Your task to perform on an android device: Show me popular videos on Youtube Image 0: 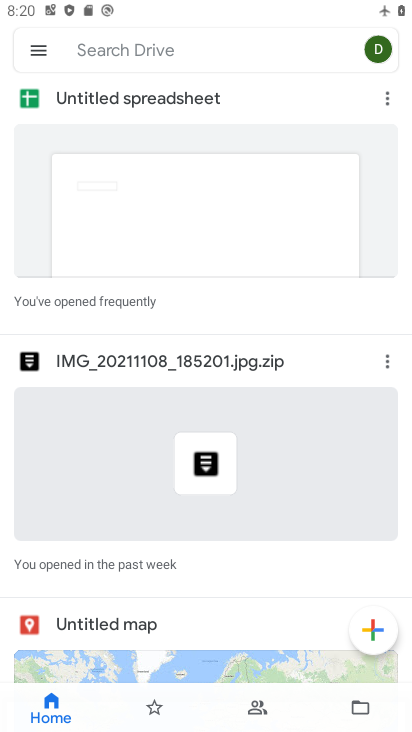
Step 0: press home button
Your task to perform on an android device: Show me popular videos on Youtube Image 1: 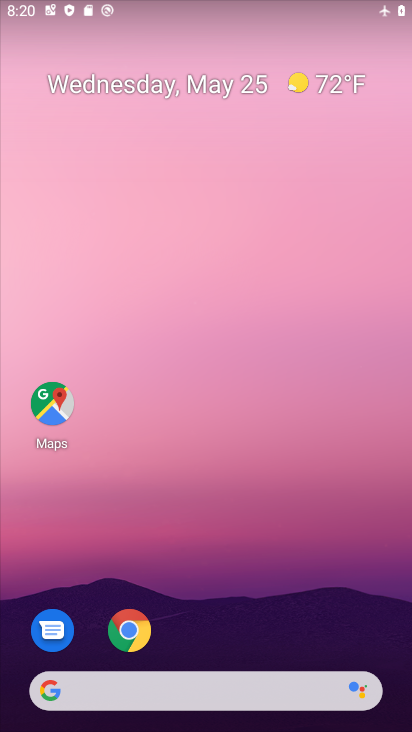
Step 1: drag from (210, 642) to (207, 217)
Your task to perform on an android device: Show me popular videos on Youtube Image 2: 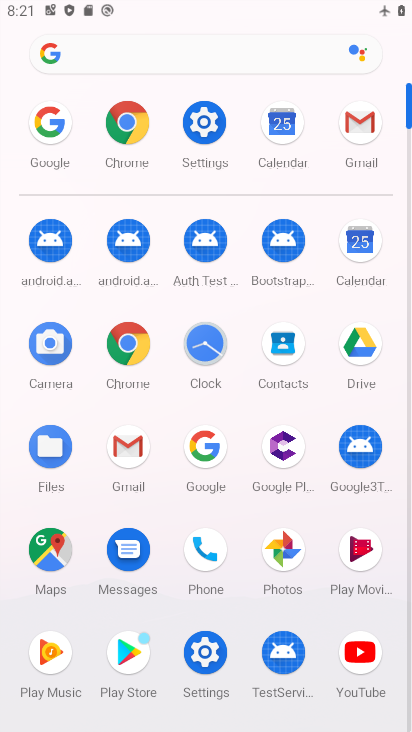
Step 2: click (368, 654)
Your task to perform on an android device: Show me popular videos on Youtube Image 3: 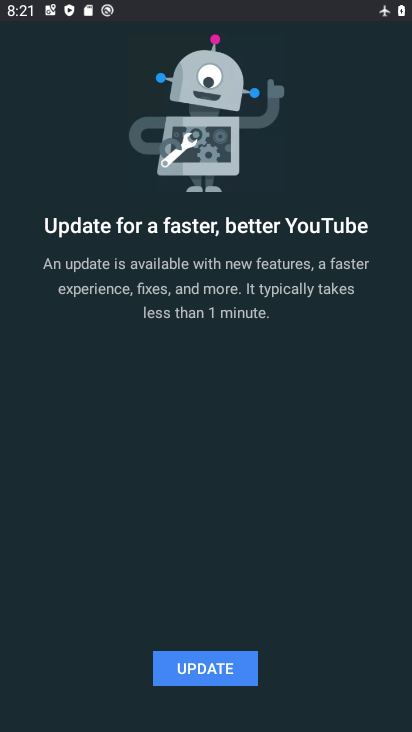
Step 3: click (204, 657)
Your task to perform on an android device: Show me popular videos on Youtube Image 4: 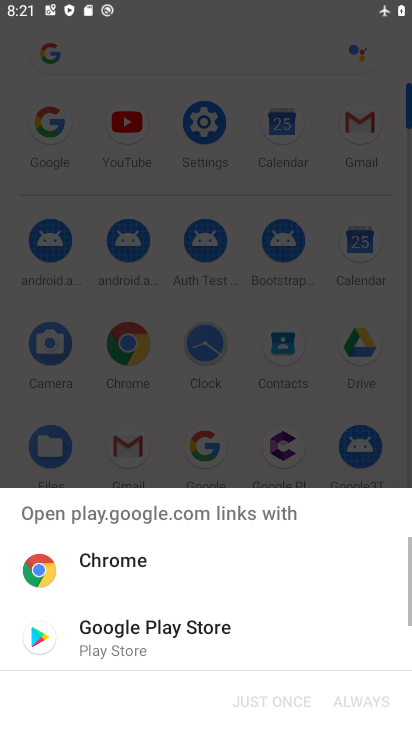
Step 4: click (178, 609)
Your task to perform on an android device: Show me popular videos on Youtube Image 5: 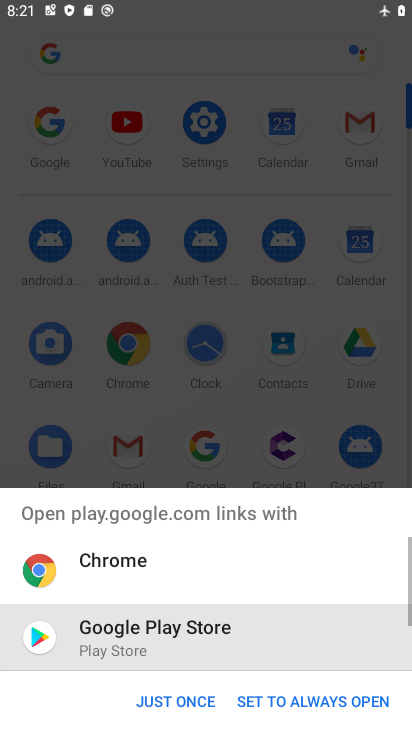
Step 5: click (180, 691)
Your task to perform on an android device: Show me popular videos on Youtube Image 6: 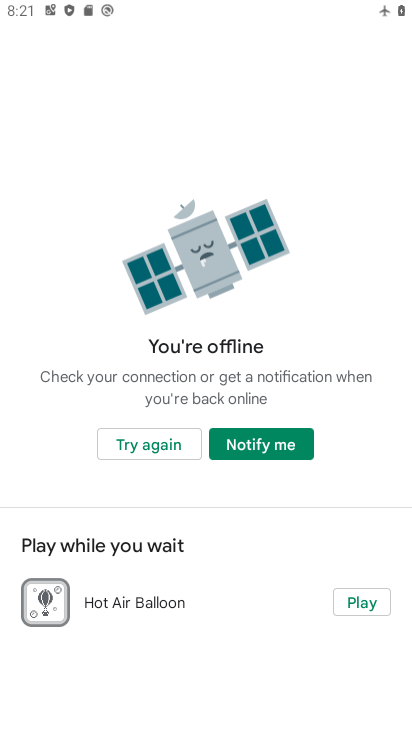
Step 6: press back button
Your task to perform on an android device: Show me popular videos on Youtube Image 7: 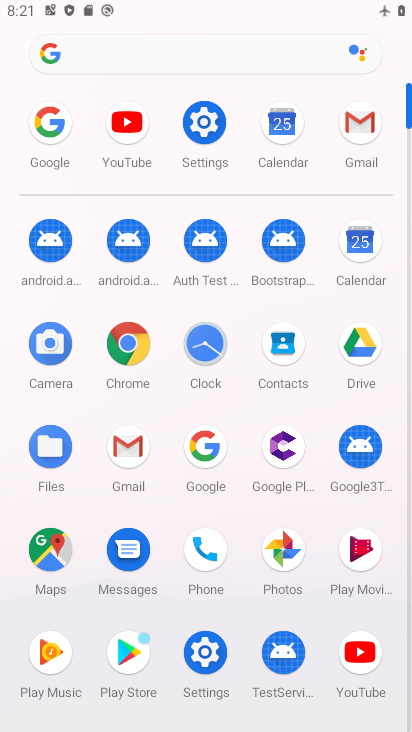
Step 7: click (121, 95)
Your task to perform on an android device: Show me popular videos on Youtube Image 8: 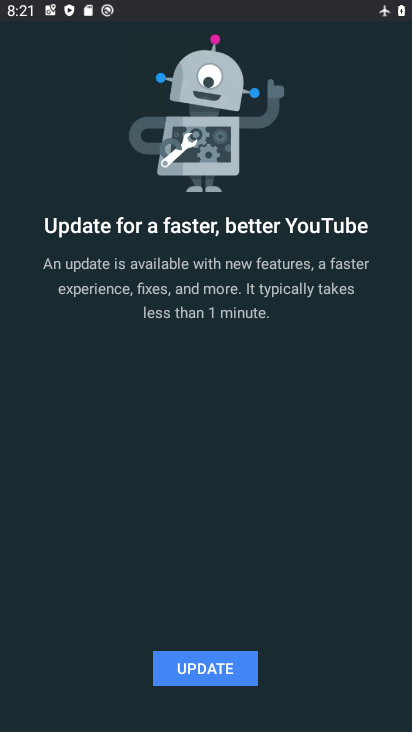
Step 8: click (225, 654)
Your task to perform on an android device: Show me popular videos on Youtube Image 9: 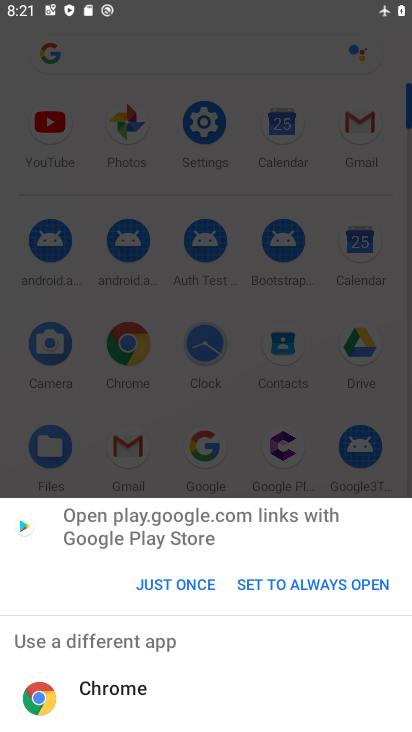
Step 9: click (176, 580)
Your task to perform on an android device: Show me popular videos on Youtube Image 10: 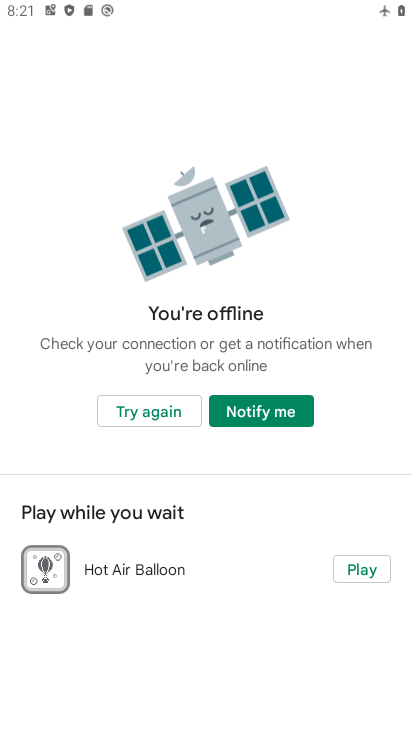
Step 10: task complete